Your task to perform on an android device: open app "Google Chat" (install if not already installed) Image 0: 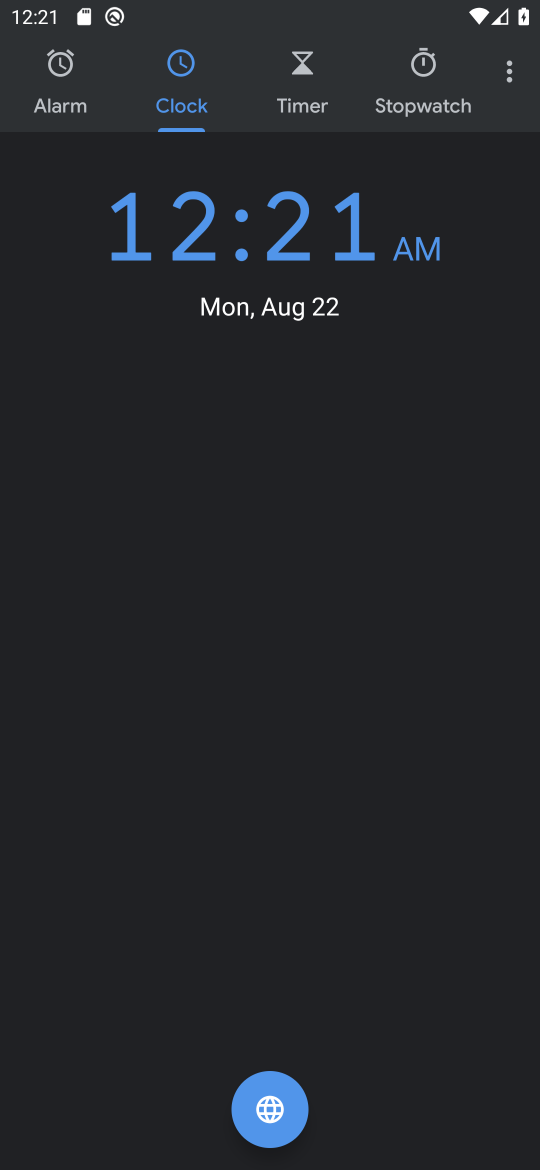
Step 0: press home button
Your task to perform on an android device: open app "Google Chat" (install if not already installed) Image 1: 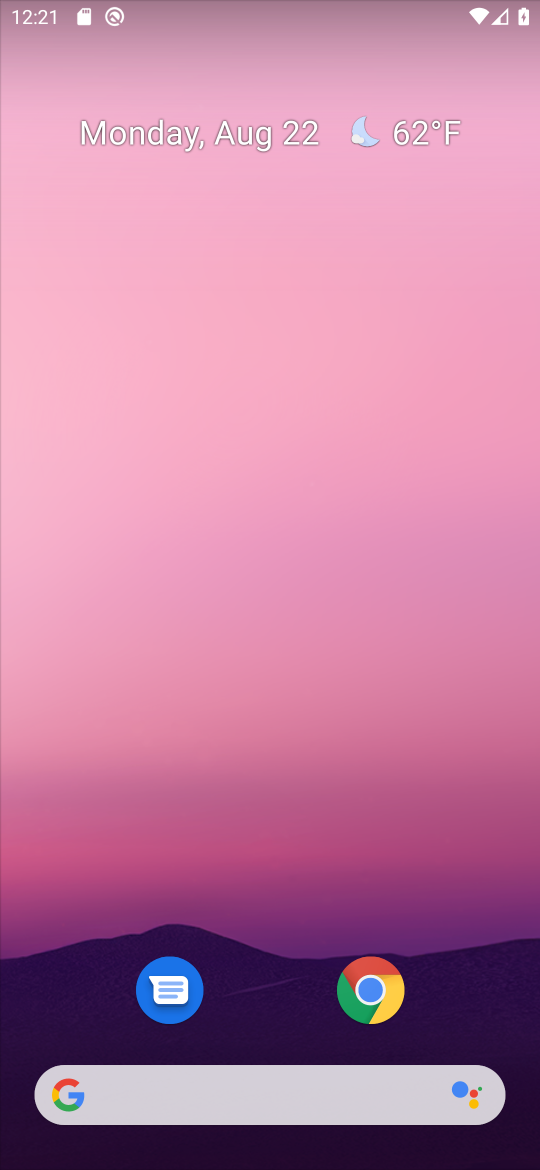
Step 1: drag from (257, 946) to (271, 215)
Your task to perform on an android device: open app "Google Chat" (install if not already installed) Image 2: 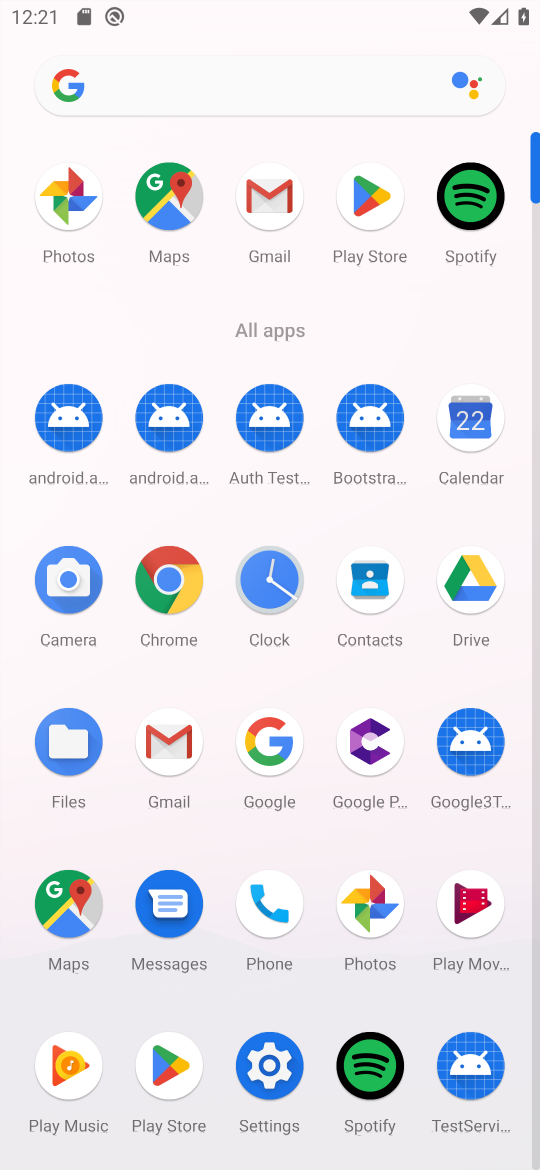
Step 2: click (350, 227)
Your task to perform on an android device: open app "Google Chat" (install if not already installed) Image 3: 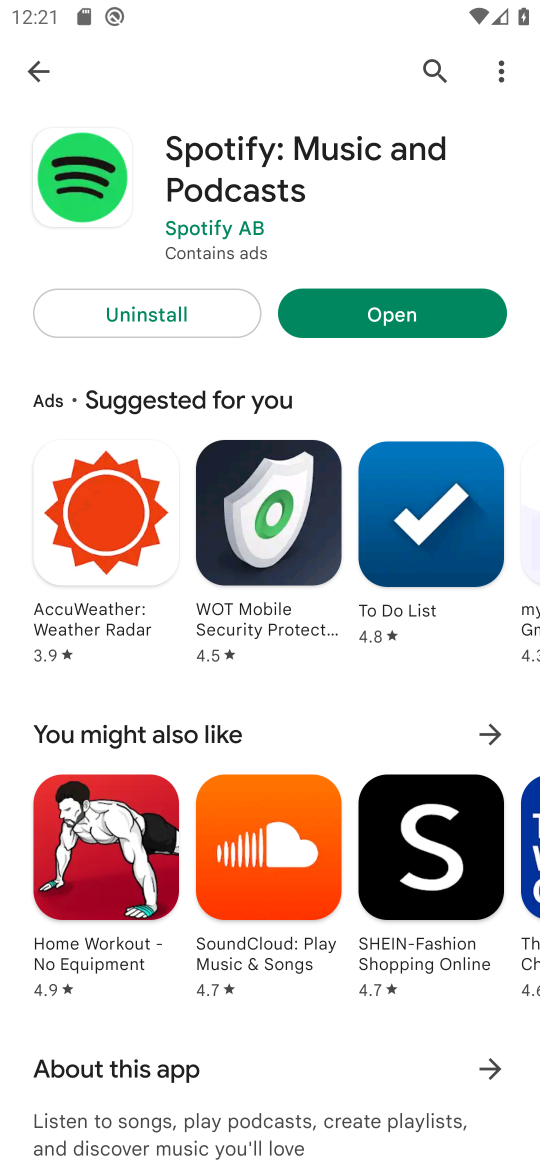
Step 3: click (427, 65)
Your task to perform on an android device: open app "Google Chat" (install if not already installed) Image 4: 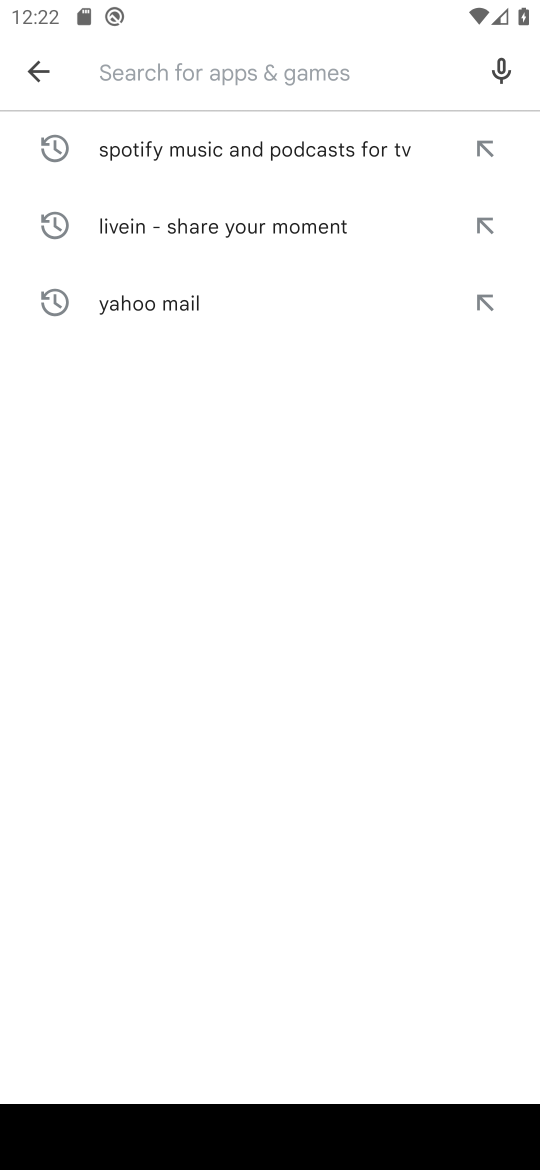
Step 4: type "Google Chat"
Your task to perform on an android device: open app "Google Chat" (install if not already installed) Image 5: 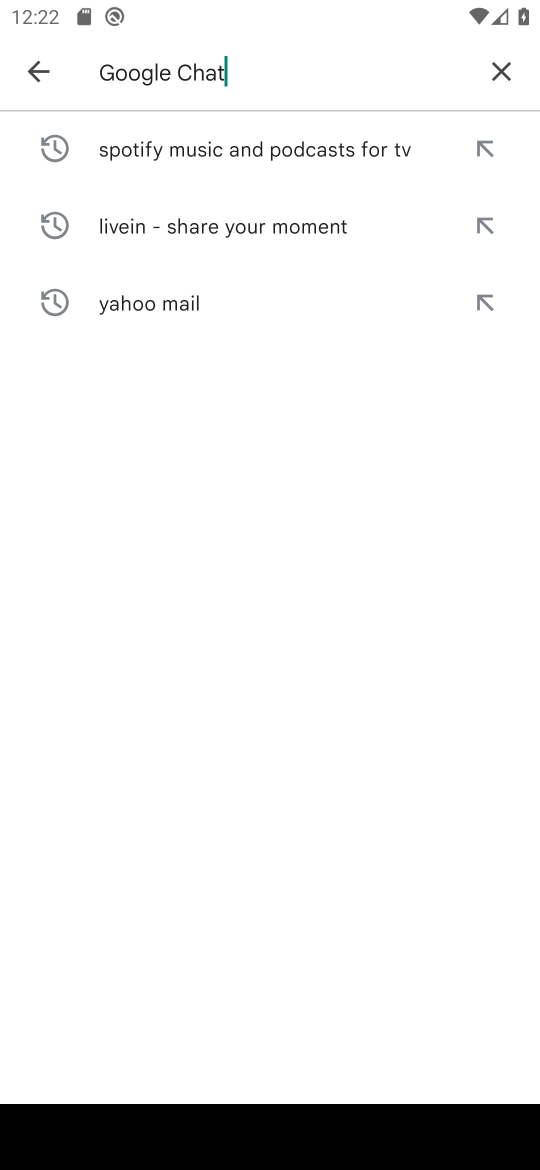
Step 5: type ""
Your task to perform on an android device: open app "Google Chat" (install if not already installed) Image 6: 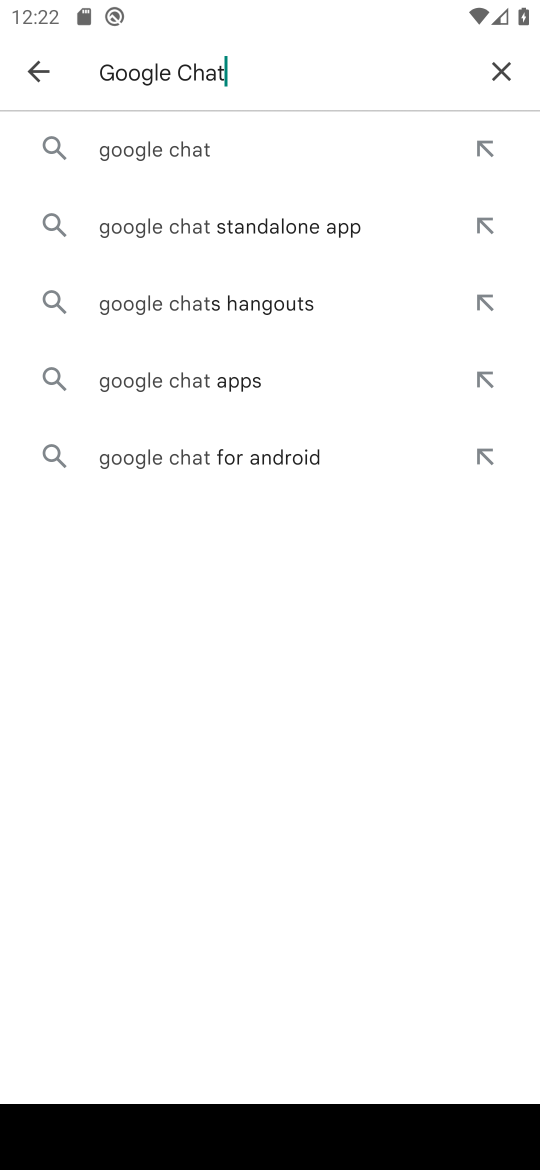
Step 6: click (210, 143)
Your task to perform on an android device: open app "Google Chat" (install if not already installed) Image 7: 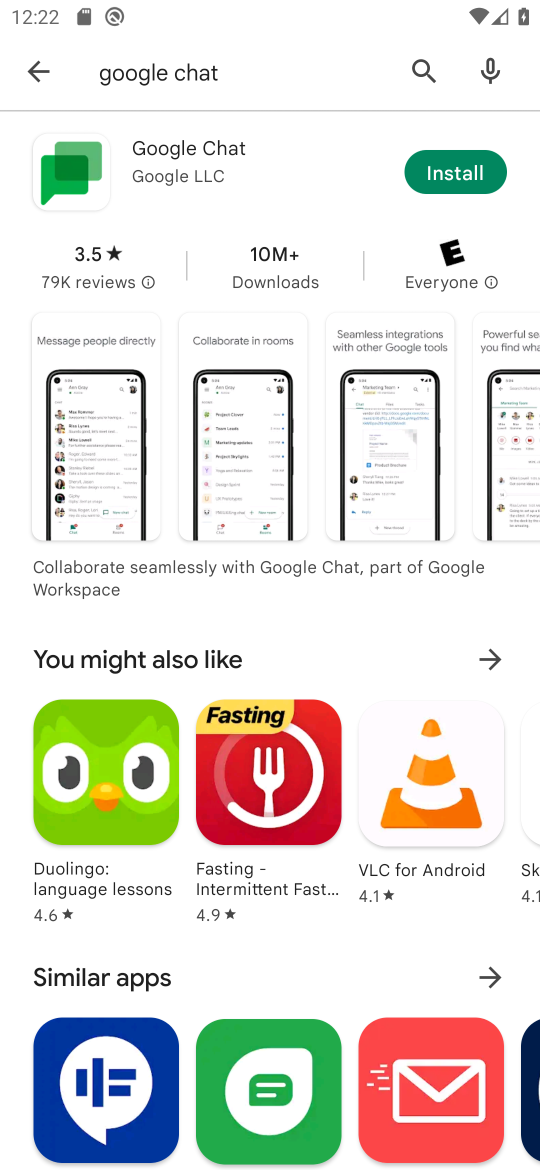
Step 7: click (448, 178)
Your task to perform on an android device: open app "Google Chat" (install if not already installed) Image 8: 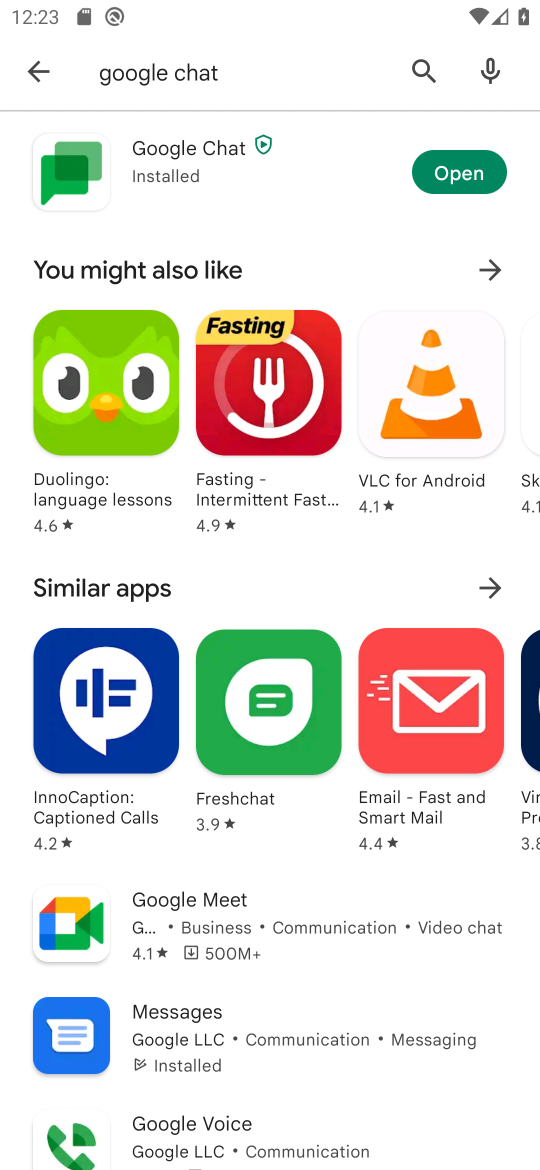
Step 8: click (485, 173)
Your task to perform on an android device: open app "Google Chat" (install if not already installed) Image 9: 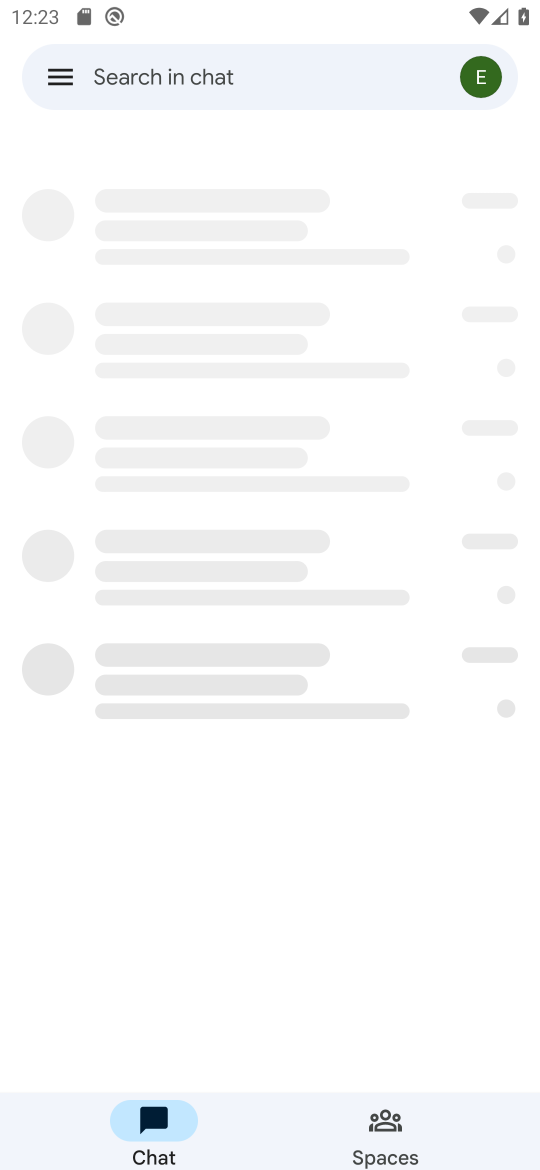
Step 9: task complete